Your task to perform on an android device: Go to eBay Image 0: 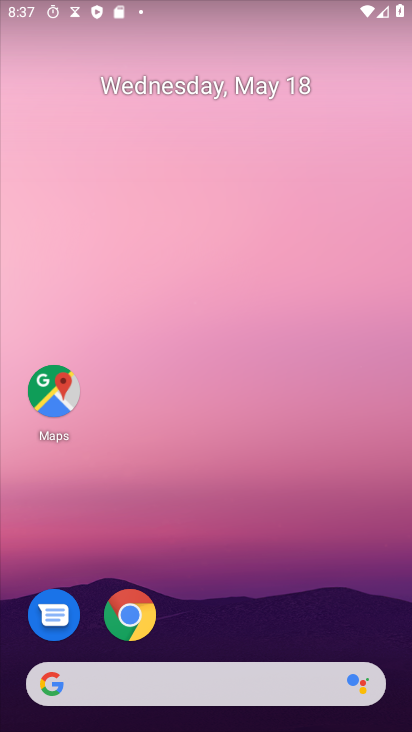
Step 0: drag from (206, 363) to (219, 94)
Your task to perform on an android device: Go to eBay Image 1: 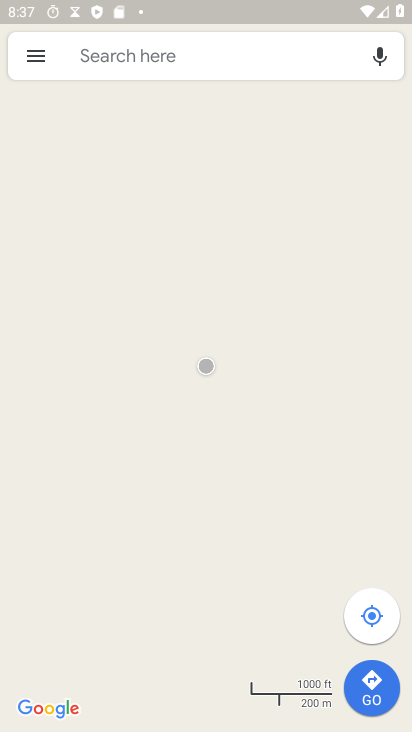
Step 1: press home button
Your task to perform on an android device: Go to eBay Image 2: 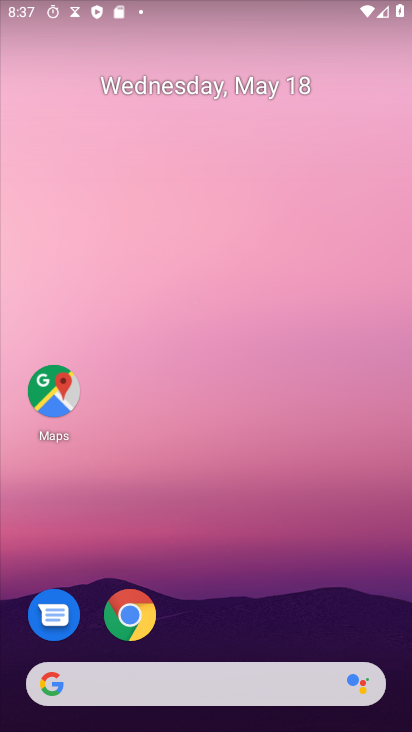
Step 2: click (143, 606)
Your task to perform on an android device: Go to eBay Image 3: 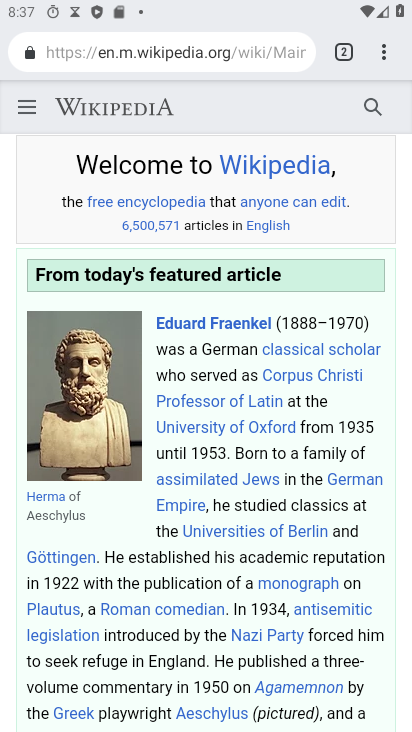
Step 3: click (354, 54)
Your task to perform on an android device: Go to eBay Image 4: 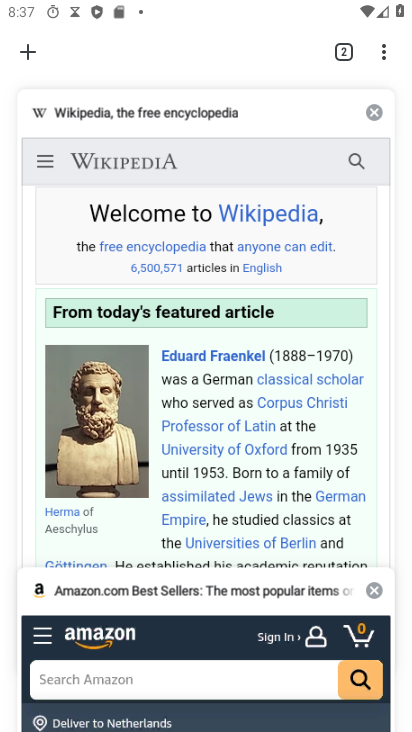
Step 4: click (22, 47)
Your task to perform on an android device: Go to eBay Image 5: 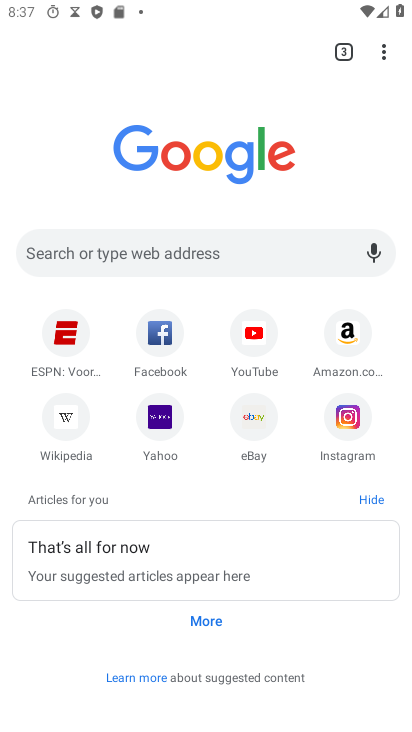
Step 5: click (260, 410)
Your task to perform on an android device: Go to eBay Image 6: 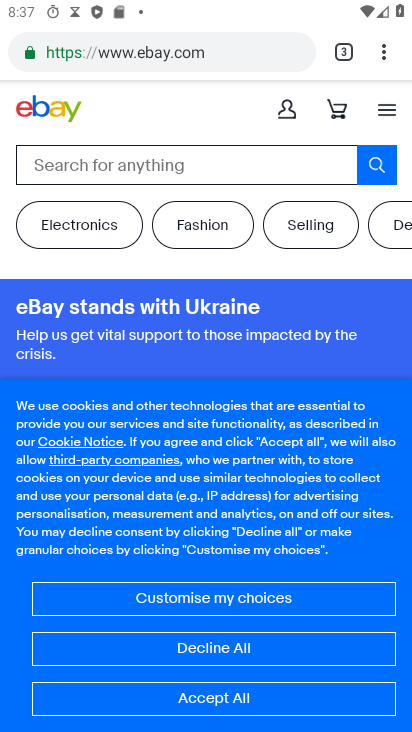
Step 6: task complete